Your task to perform on an android device: Toggle the flashlight Image 0: 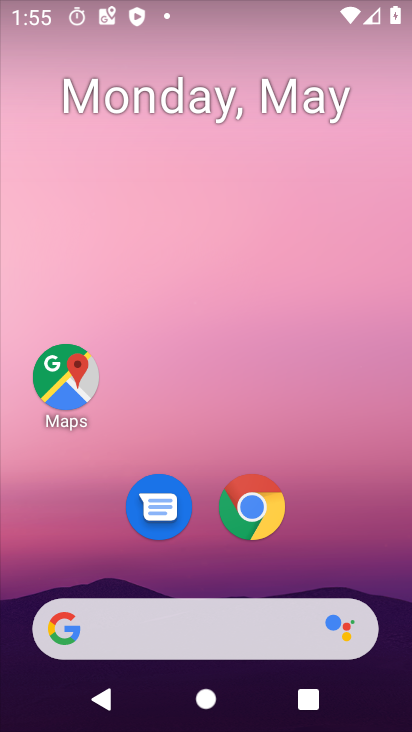
Step 0: drag from (358, 524) to (326, 169)
Your task to perform on an android device: Toggle the flashlight Image 1: 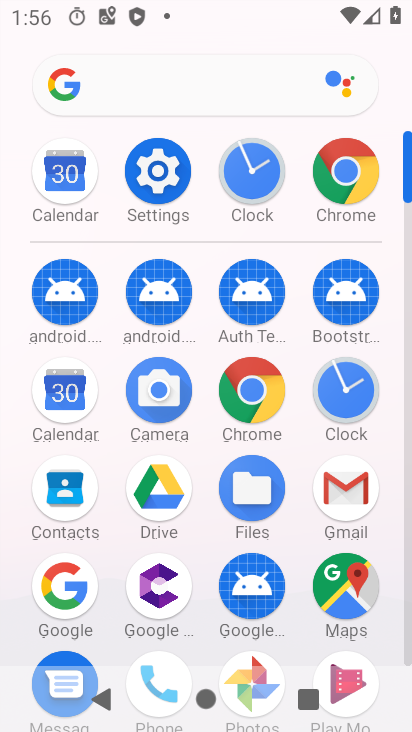
Step 1: click (178, 154)
Your task to perform on an android device: Toggle the flashlight Image 2: 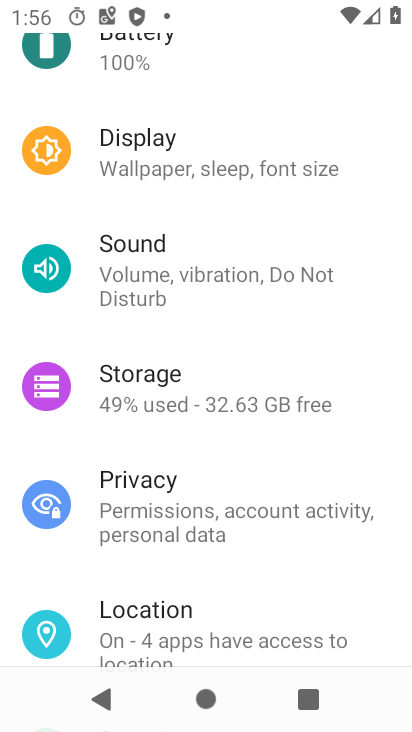
Step 2: drag from (236, 173) to (232, 561)
Your task to perform on an android device: Toggle the flashlight Image 3: 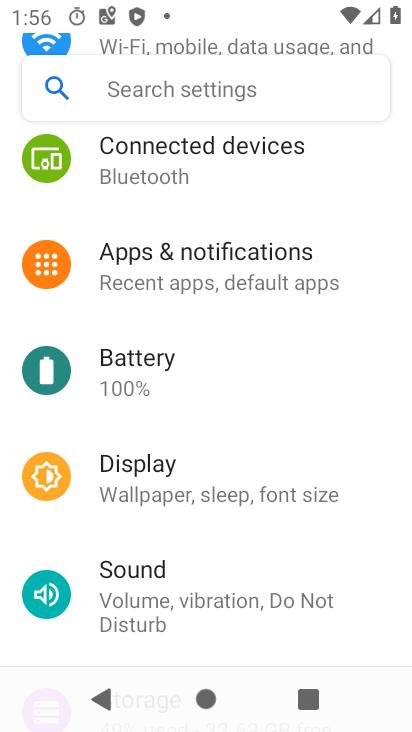
Step 3: click (250, 85)
Your task to perform on an android device: Toggle the flashlight Image 4: 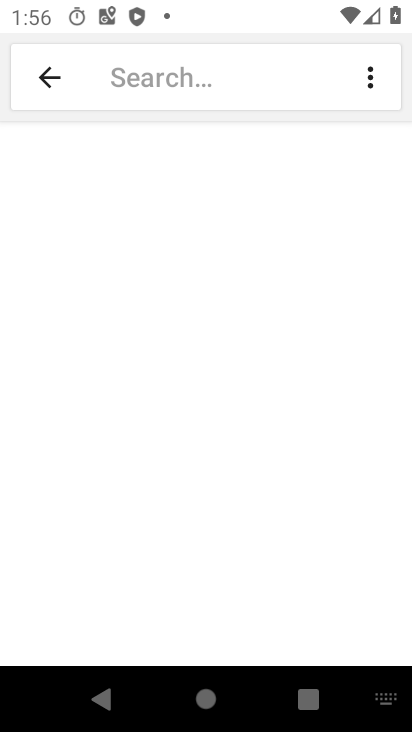
Step 4: type "flashlight"
Your task to perform on an android device: Toggle the flashlight Image 5: 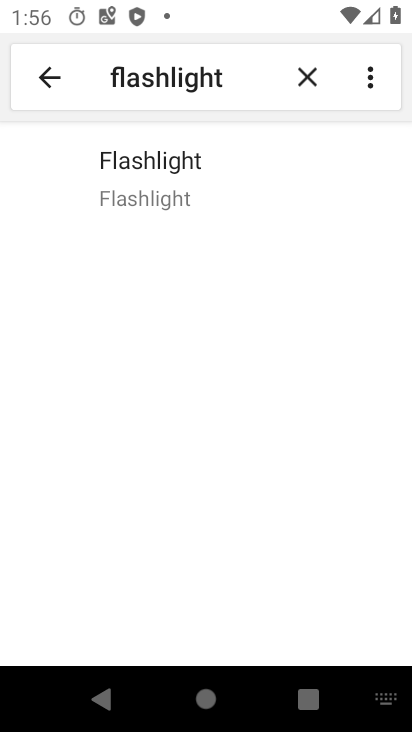
Step 5: task complete